Your task to perform on an android device: Go to Amazon Image 0: 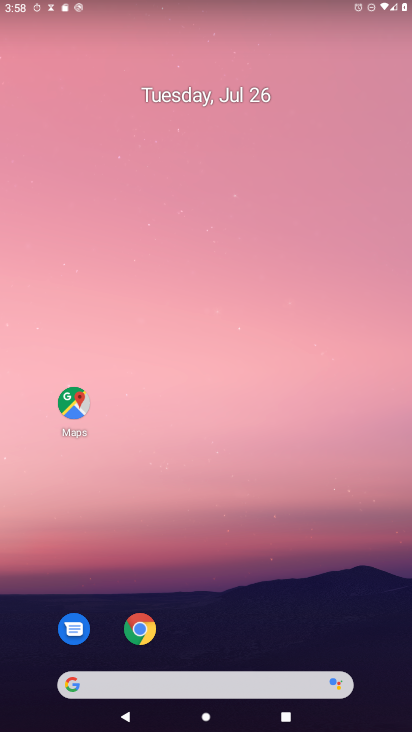
Step 0: drag from (241, 674) to (225, 17)
Your task to perform on an android device: Go to Amazon Image 1: 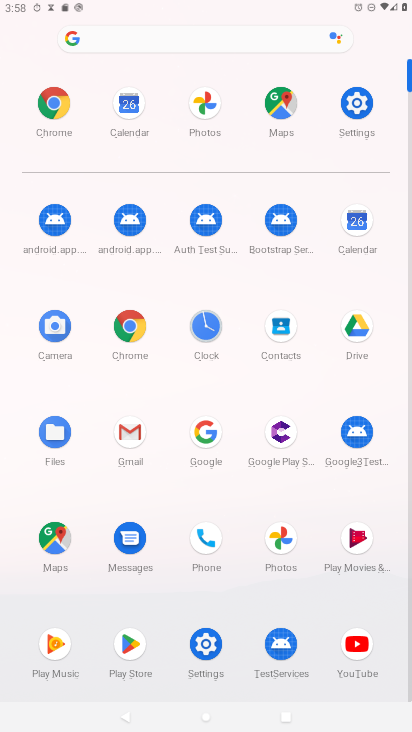
Step 1: click (122, 316)
Your task to perform on an android device: Go to Amazon Image 2: 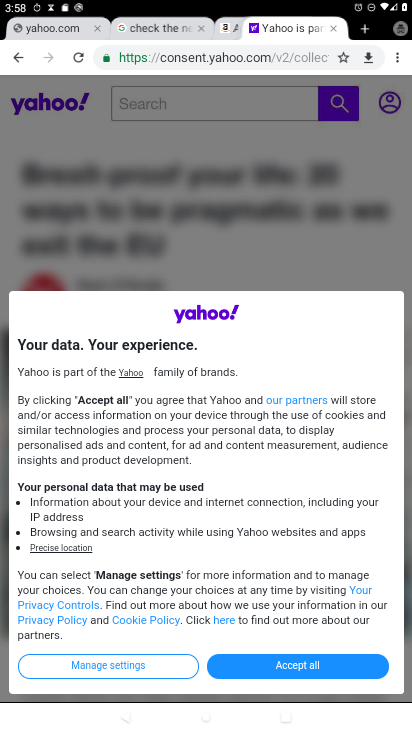
Step 2: click (389, 54)
Your task to perform on an android device: Go to Amazon Image 3: 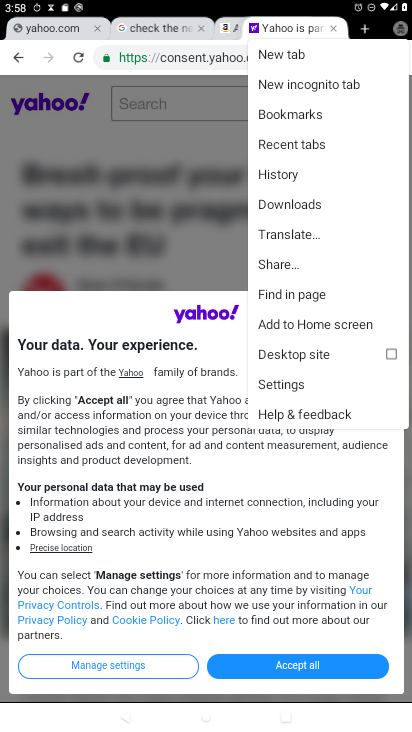
Step 3: click (302, 50)
Your task to perform on an android device: Go to Amazon Image 4: 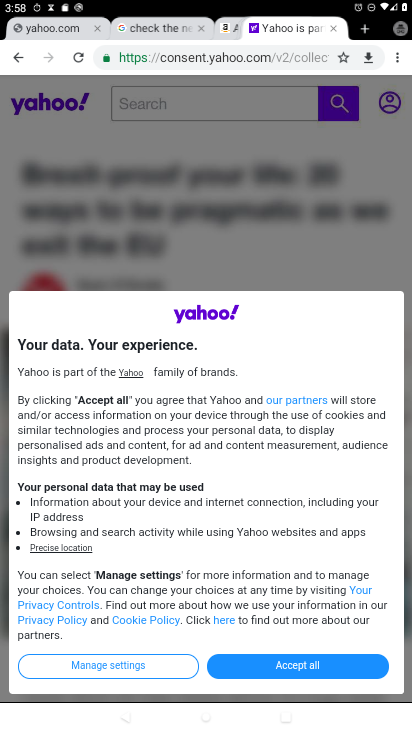
Step 4: click (338, 56)
Your task to perform on an android device: Go to Amazon Image 5: 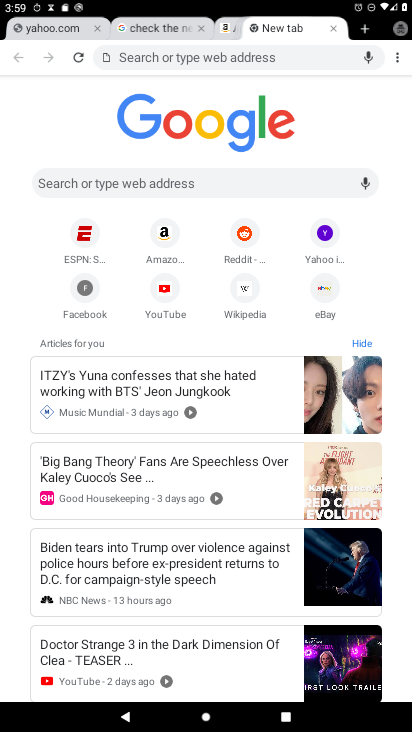
Step 5: click (168, 245)
Your task to perform on an android device: Go to Amazon Image 6: 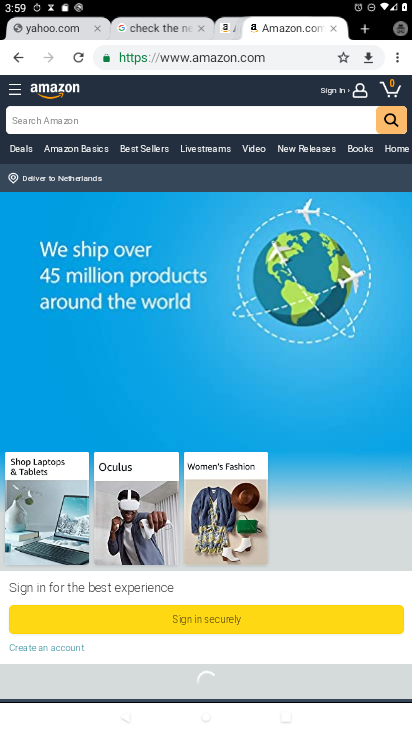
Step 6: task complete